Your task to perform on an android device: Open ESPN.com Image 0: 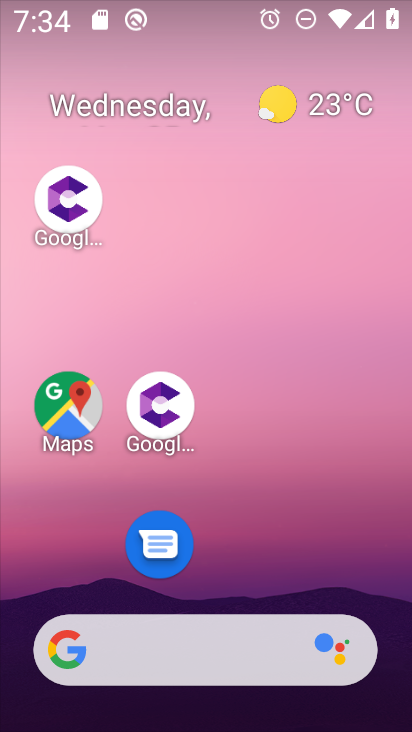
Step 0: drag from (282, 536) to (191, 11)
Your task to perform on an android device: Open ESPN.com Image 1: 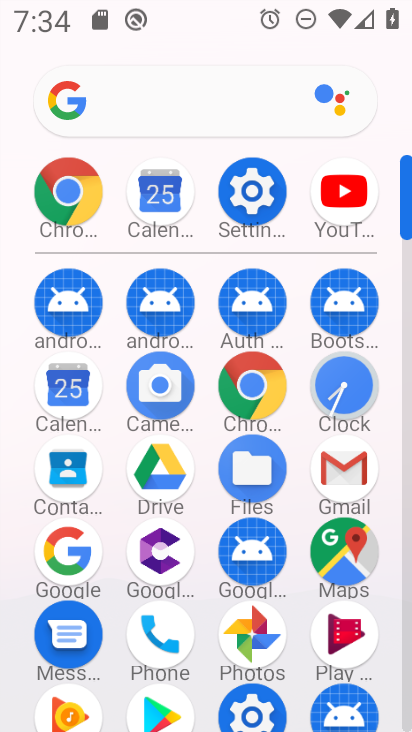
Step 1: drag from (202, 592) to (185, 319)
Your task to perform on an android device: Open ESPN.com Image 2: 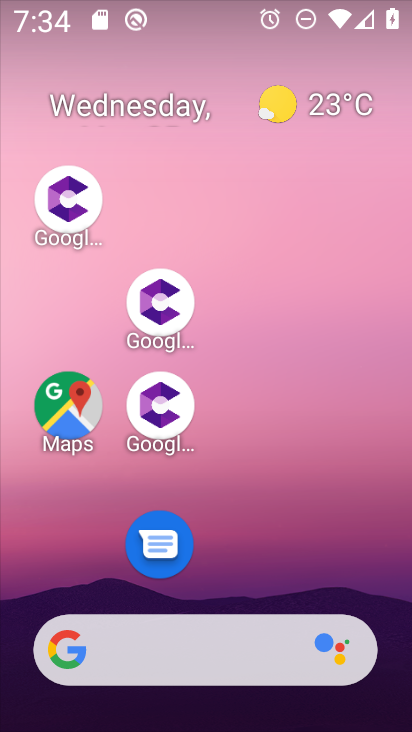
Step 2: drag from (280, 512) to (257, 102)
Your task to perform on an android device: Open ESPN.com Image 3: 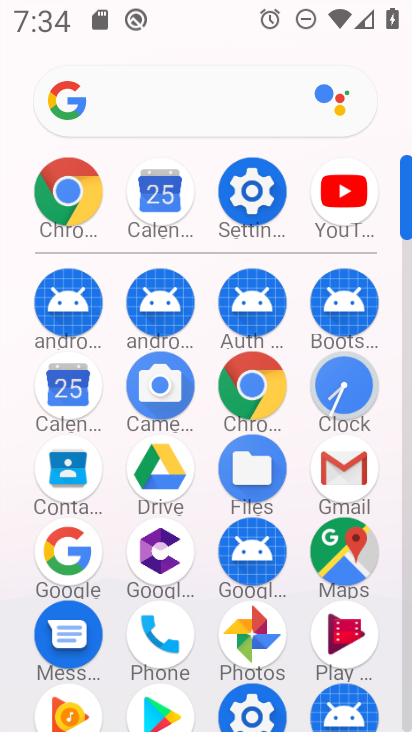
Step 3: click (254, 379)
Your task to perform on an android device: Open ESPN.com Image 4: 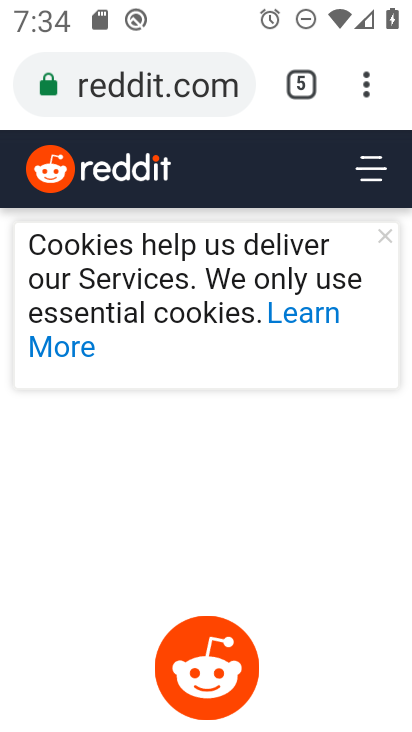
Step 4: click (371, 77)
Your task to perform on an android device: Open ESPN.com Image 5: 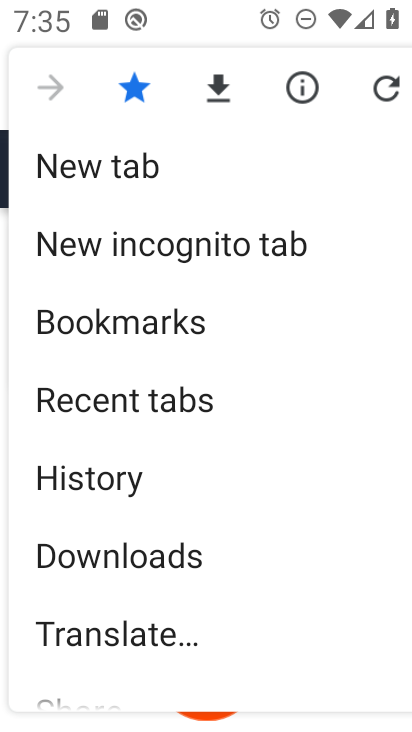
Step 5: click (147, 163)
Your task to perform on an android device: Open ESPN.com Image 6: 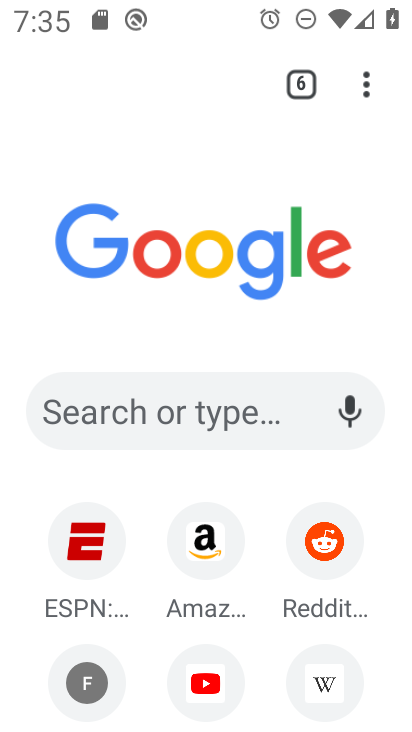
Step 6: click (83, 568)
Your task to perform on an android device: Open ESPN.com Image 7: 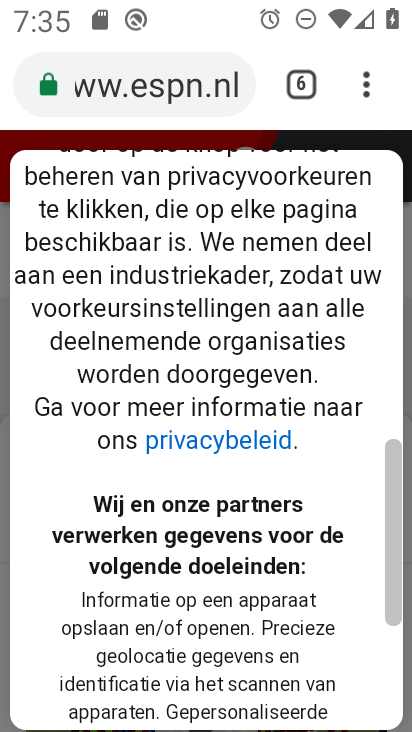
Step 7: task complete